Your task to perform on an android device: install app "Paramount+ | Peak Streaming" Image 0: 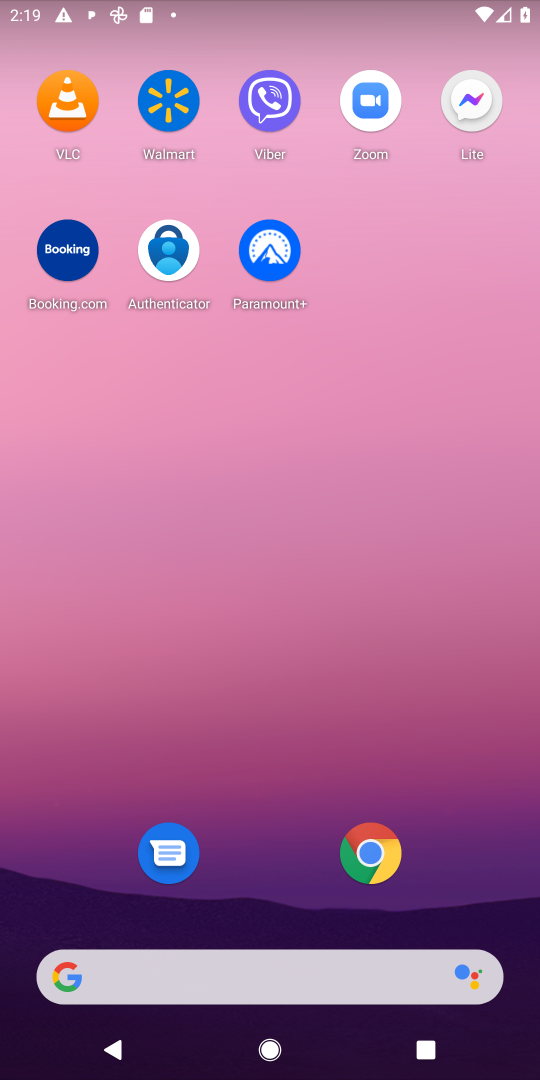
Step 0: drag from (312, 899) to (367, 193)
Your task to perform on an android device: install app "Paramount+ | Peak Streaming" Image 1: 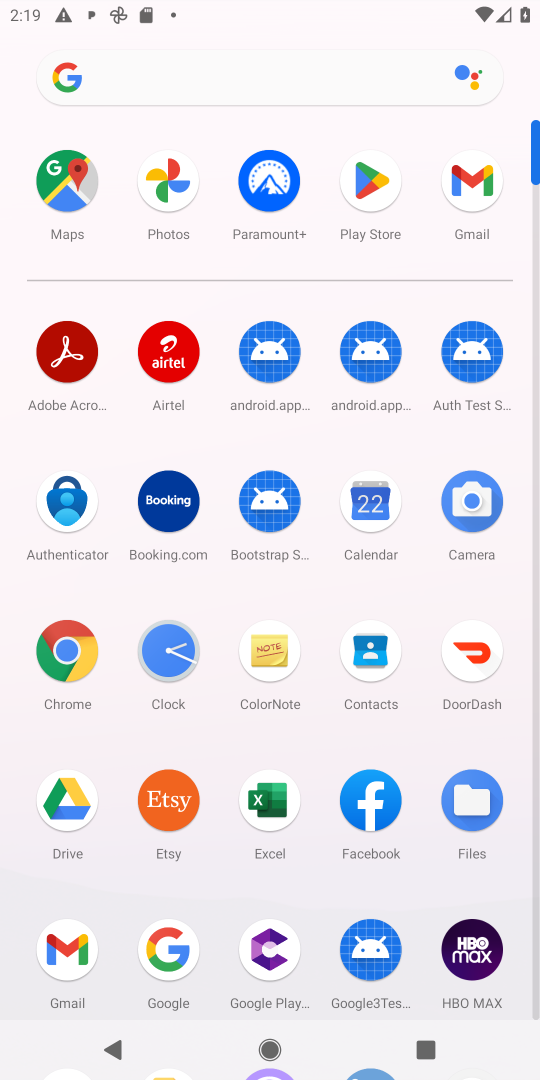
Step 1: click (376, 167)
Your task to perform on an android device: install app "Paramount+ | Peak Streaming" Image 2: 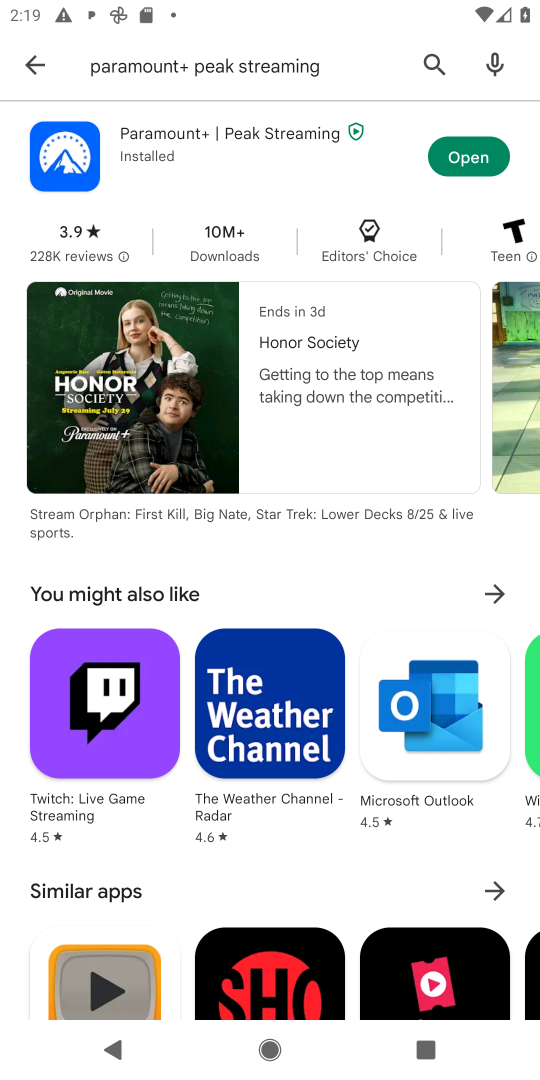
Step 2: click (32, 50)
Your task to perform on an android device: install app "Paramount+ | Peak Streaming" Image 3: 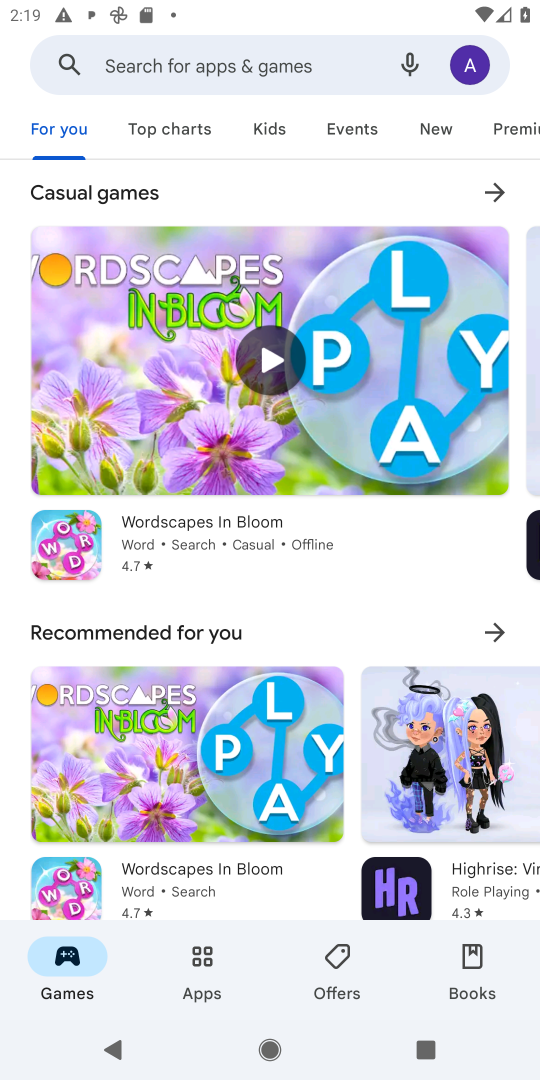
Step 3: click (151, 54)
Your task to perform on an android device: install app "Paramount+ | Peak Streaming" Image 4: 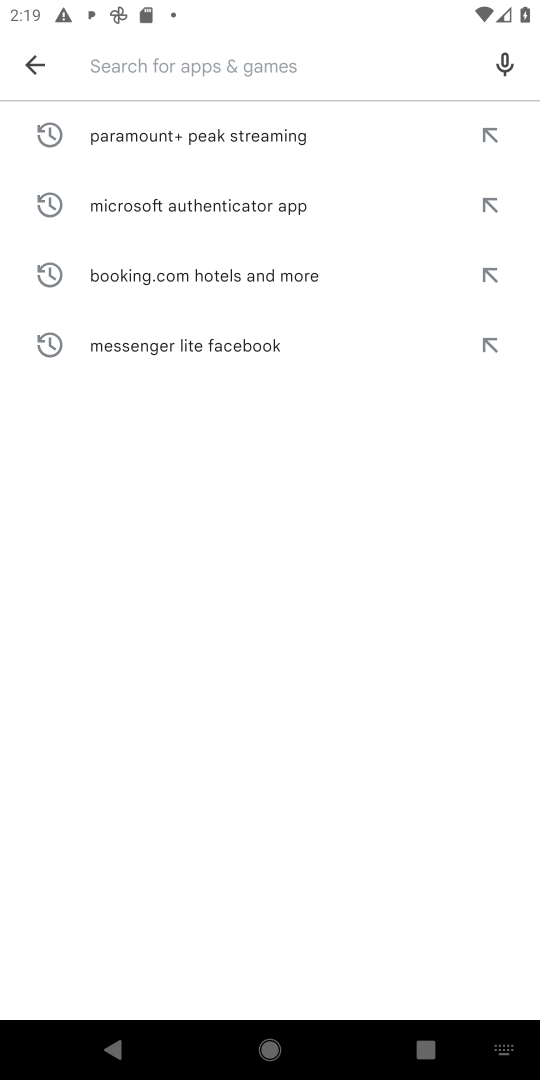
Step 4: type "Paramount+  "
Your task to perform on an android device: install app "Paramount+ | Peak Streaming" Image 5: 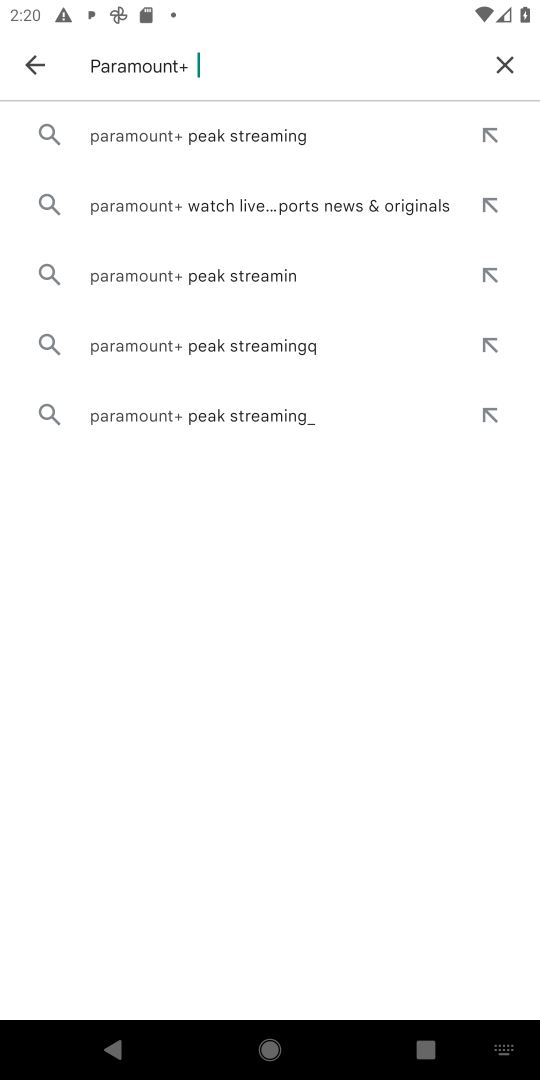
Step 5: click (190, 146)
Your task to perform on an android device: install app "Paramount+ | Peak Streaming" Image 6: 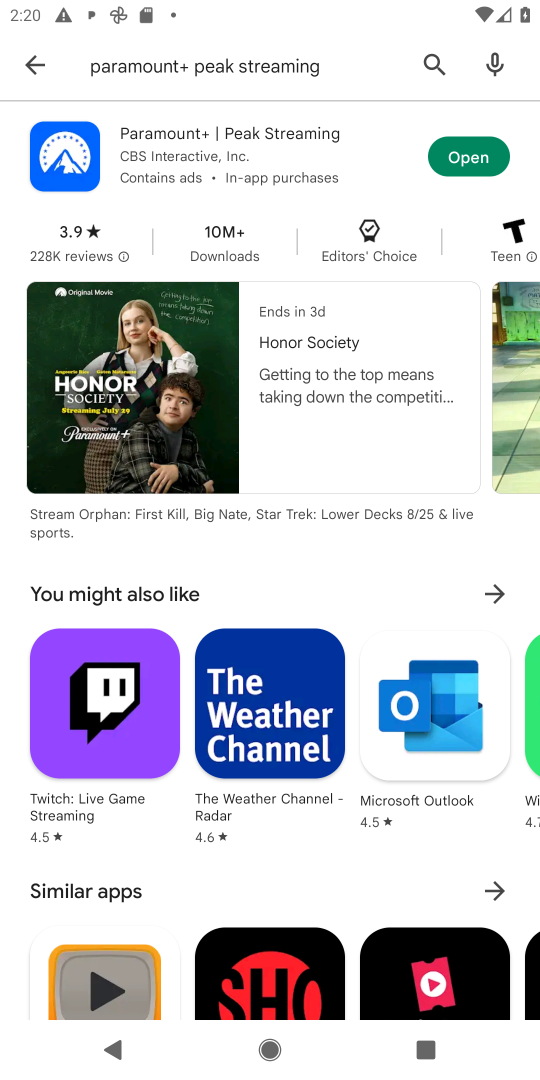
Step 6: click (460, 153)
Your task to perform on an android device: install app "Paramount+ | Peak Streaming" Image 7: 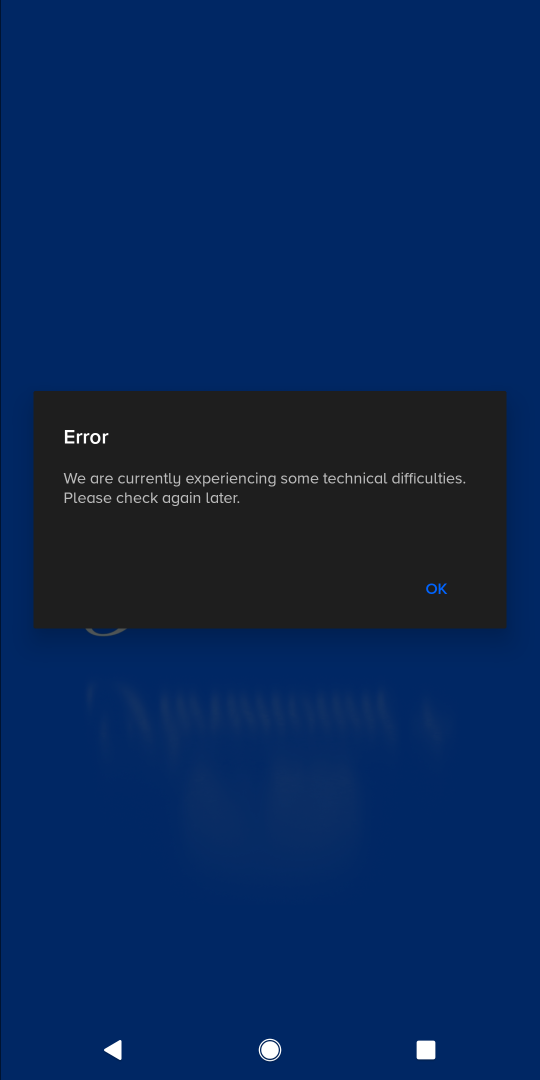
Step 7: click (445, 578)
Your task to perform on an android device: install app "Paramount+ | Peak Streaming" Image 8: 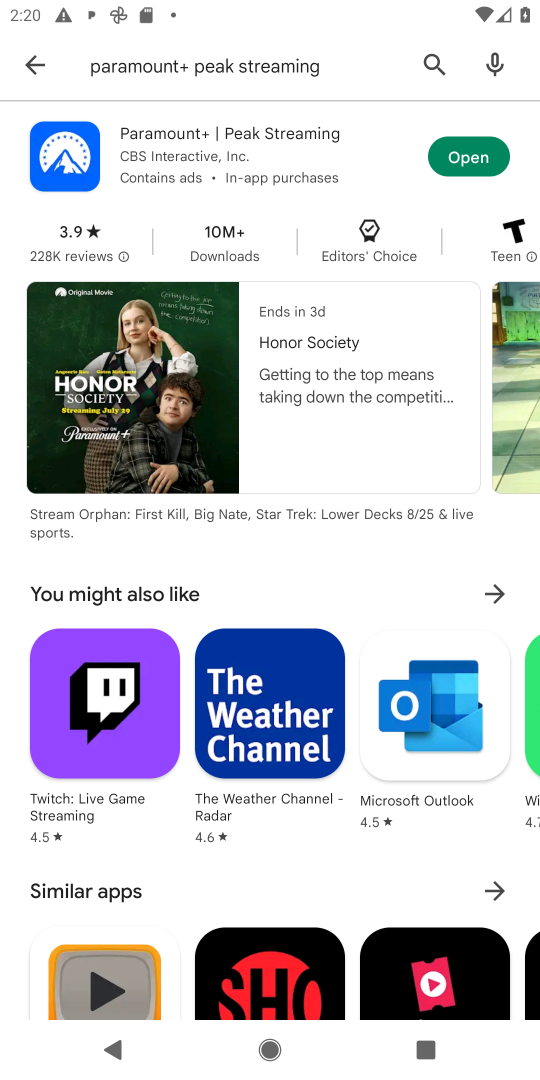
Step 8: task complete